Your task to perform on an android device: Open the calendar app, open the side menu, and click the "Day" option Image 0: 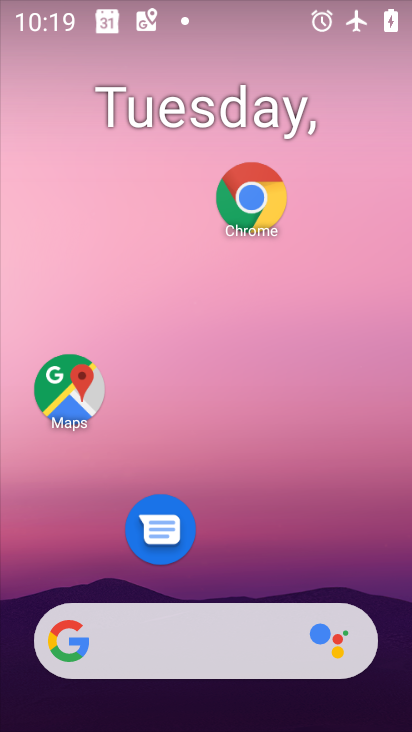
Step 0: drag from (338, 565) to (352, 10)
Your task to perform on an android device: Open the calendar app, open the side menu, and click the "Day" option Image 1: 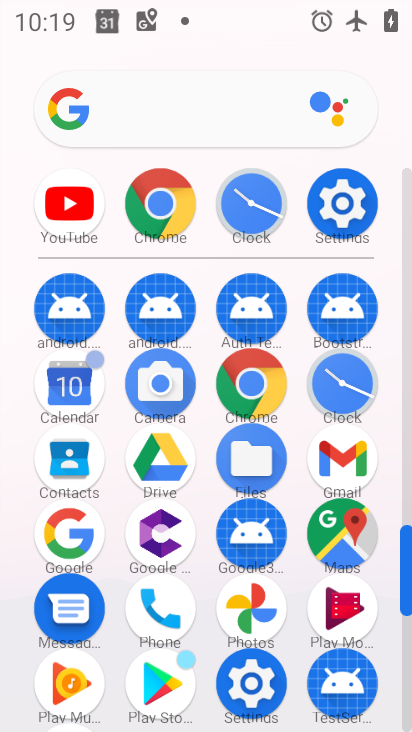
Step 1: click (339, 198)
Your task to perform on an android device: Open the calendar app, open the side menu, and click the "Day" option Image 2: 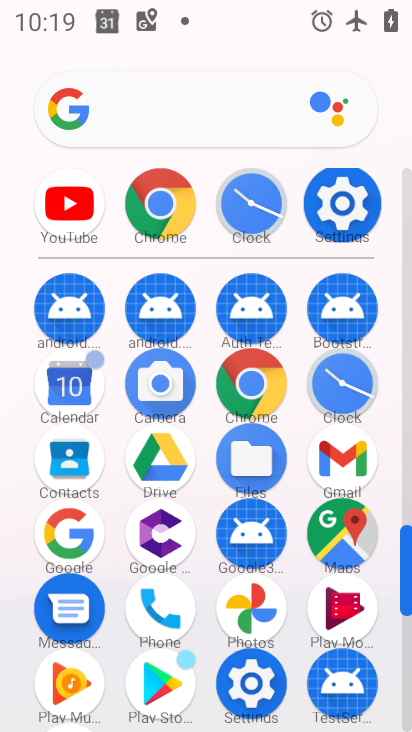
Step 2: click (339, 198)
Your task to perform on an android device: Open the calendar app, open the side menu, and click the "Day" option Image 3: 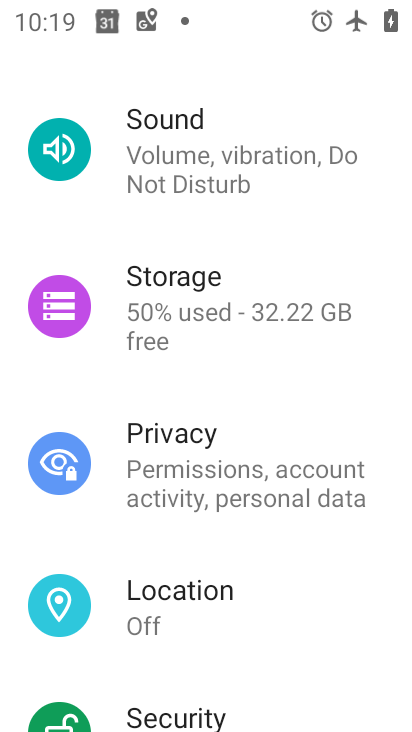
Step 3: press home button
Your task to perform on an android device: Open the calendar app, open the side menu, and click the "Day" option Image 4: 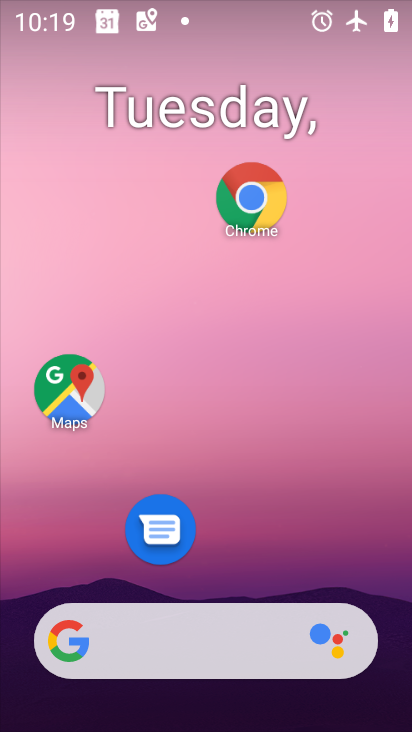
Step 4: drag from (286, 492) to (321, 203)
Your task to perform on an android device: Open the calendar app, open the side menu, and click the "Day" option Image 5: 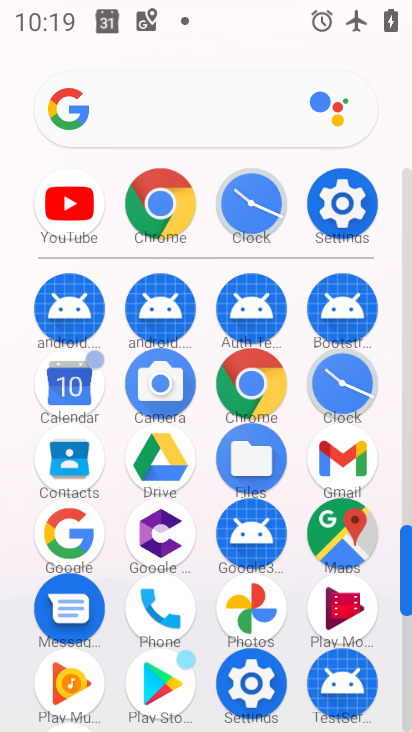
Step 5: click (73, 371)
Your task to perform on an android device: Open the calendar app, open the side menu, and click the "Day" option Image 6: 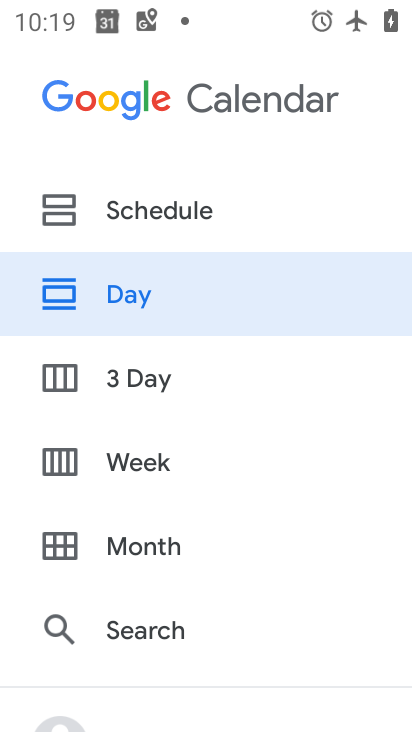
Step 6: click (112, 307)
Your task to perform on an android device: Open the calendar app, open the side menu, and click the "Day" option Image 7: 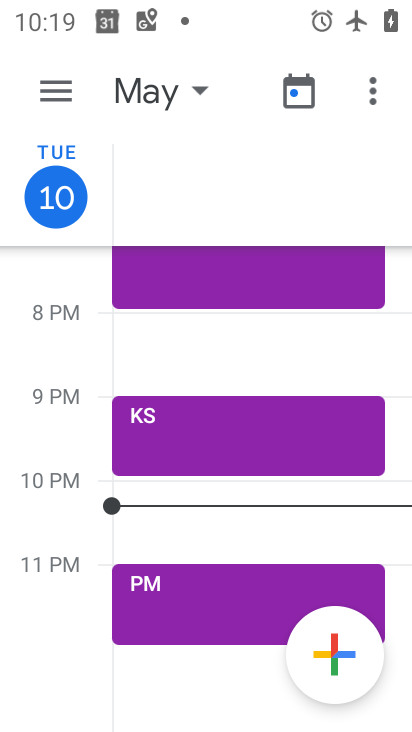
Step 7: task complete